Your task to perform on an android device: Go to internet settings Image 0: 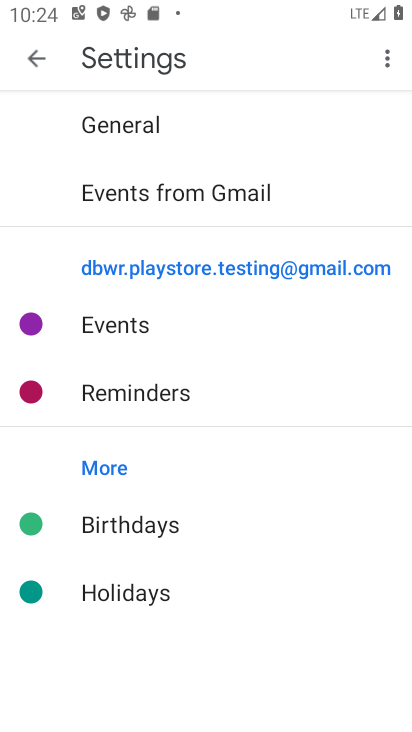
Step 0: press home button
Your task to perform on an android device: Go to internet settings Image 1: 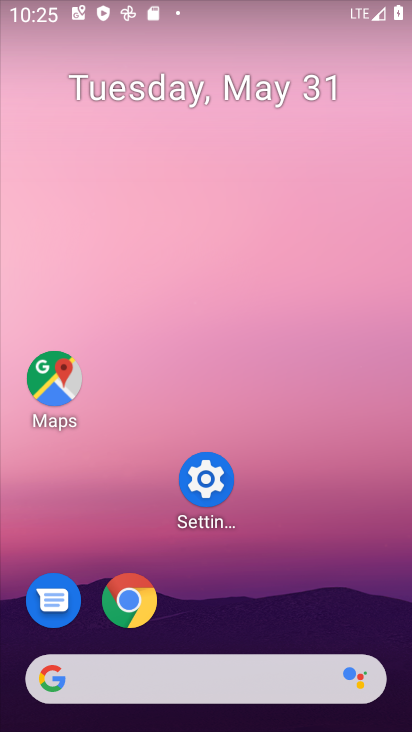
Step 1: click (190, 478)
Your task to perform on an android device: Go to internet settings Image 2: 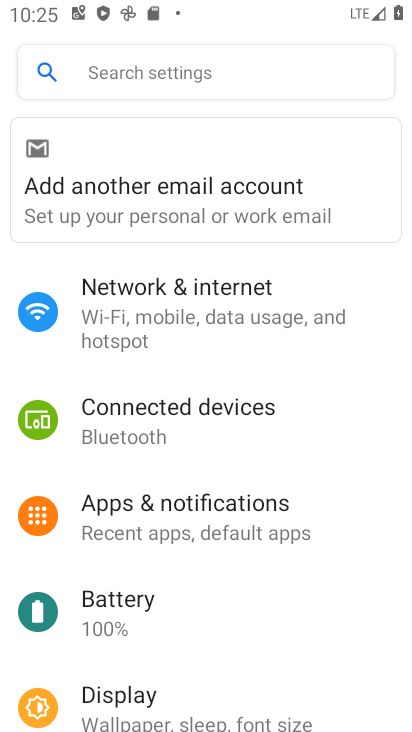
Step 2: click (149, 305)
Your task to perform on an android device: Go to internet settings Image 3: 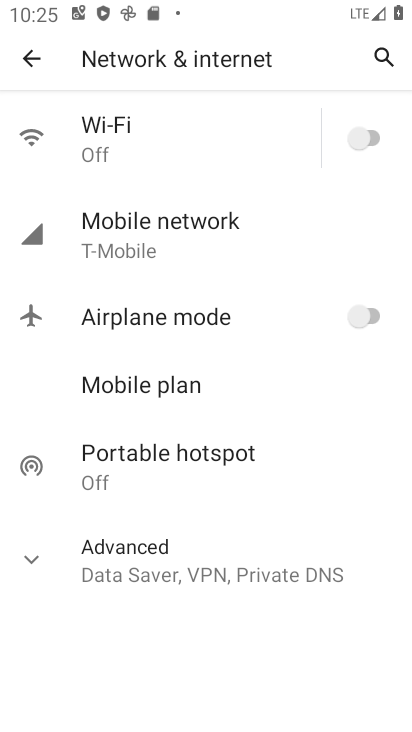
Step 3: task complete